Your task to perform on an android device: Search for apple airpods pro on walmart.com, select the first entry, add it to the cart, then select checkout. Image 0: 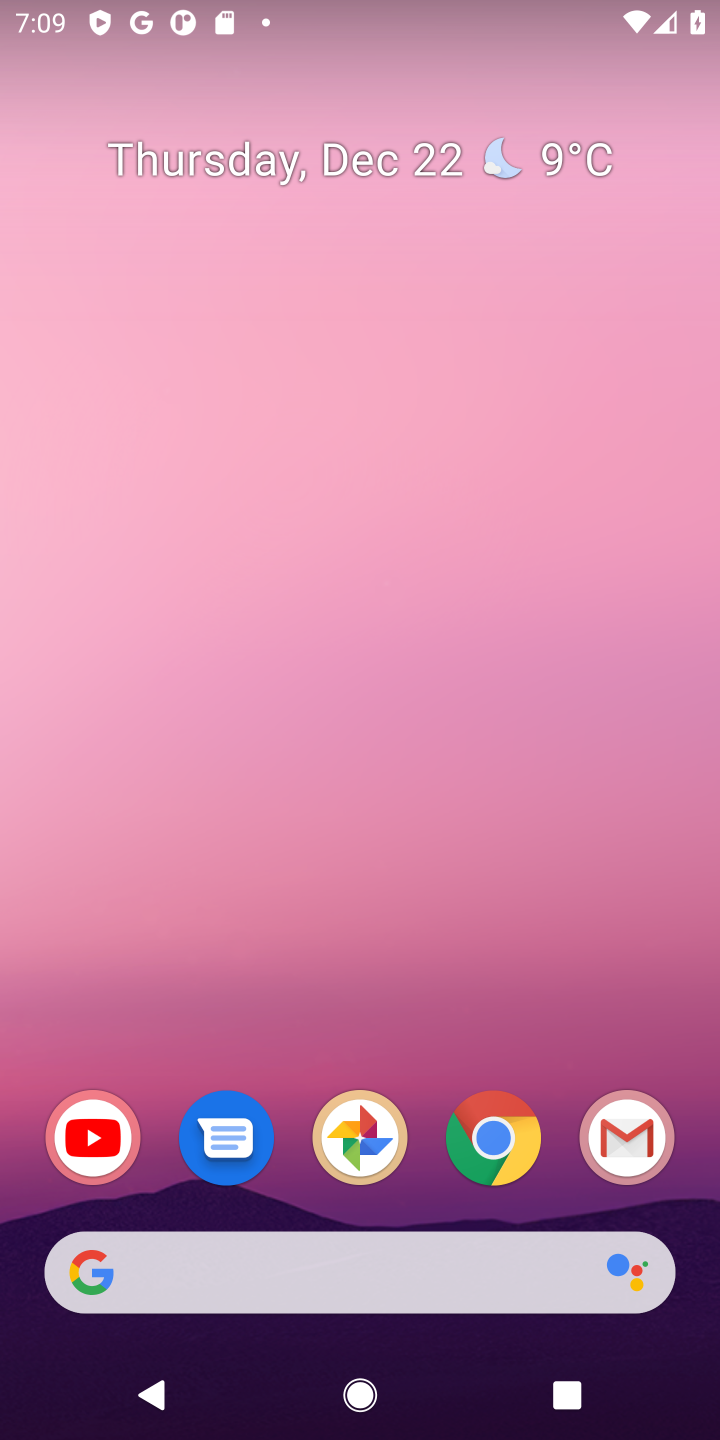
Step 0: click (486, 1139)
Your task to perform on an android device: Search for apple airpods pro on walmart.com, select the first entry, add it to the cart, then select checkout. Image 1: 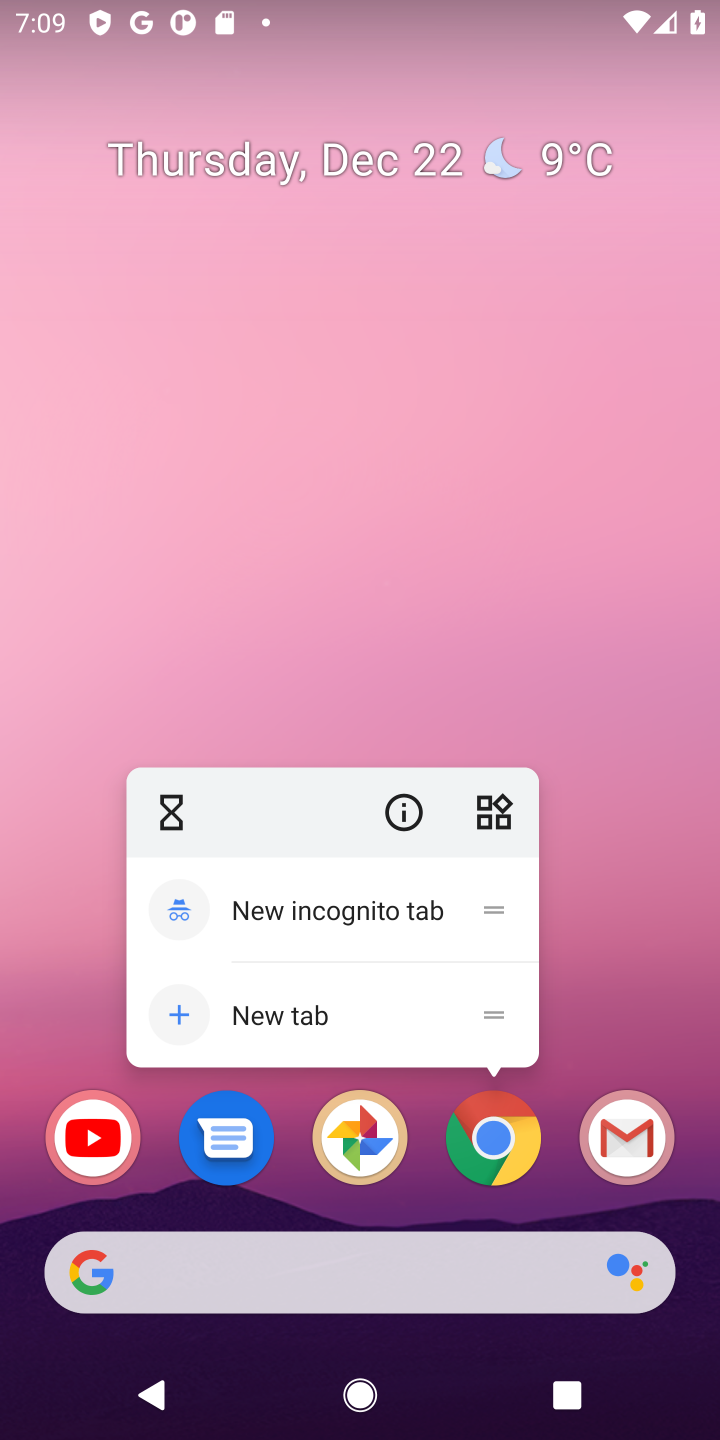
Step 1: click (486, 1139)
Your task to perform on an android device: Search for apple airpods pro on walmart.com, select the first entry, add it to the cart, then select checkout. Image 2: 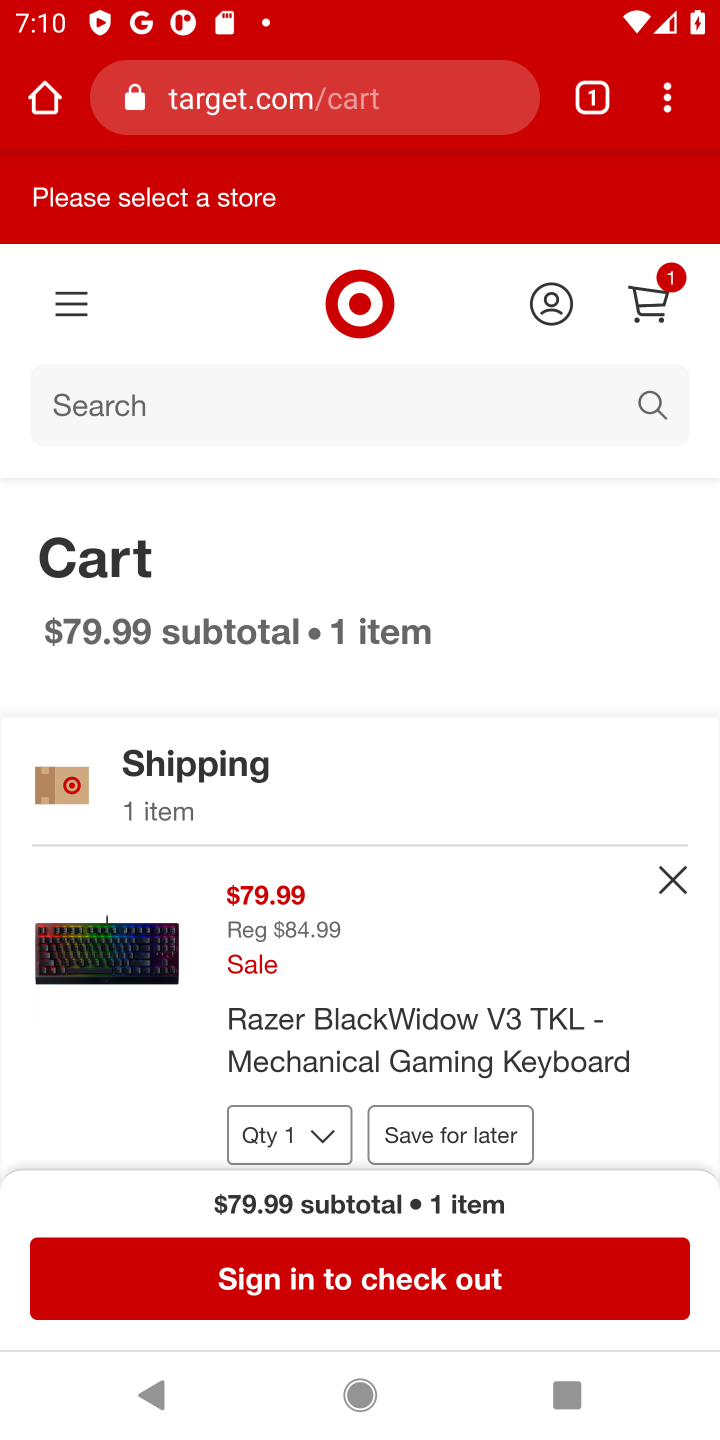
Step 2: click (434, 99)
Your task to perform on an android device: Search for apple airpods pro on walmart.com, select the first entry, add it to the cart, then select checkout. Image 3: 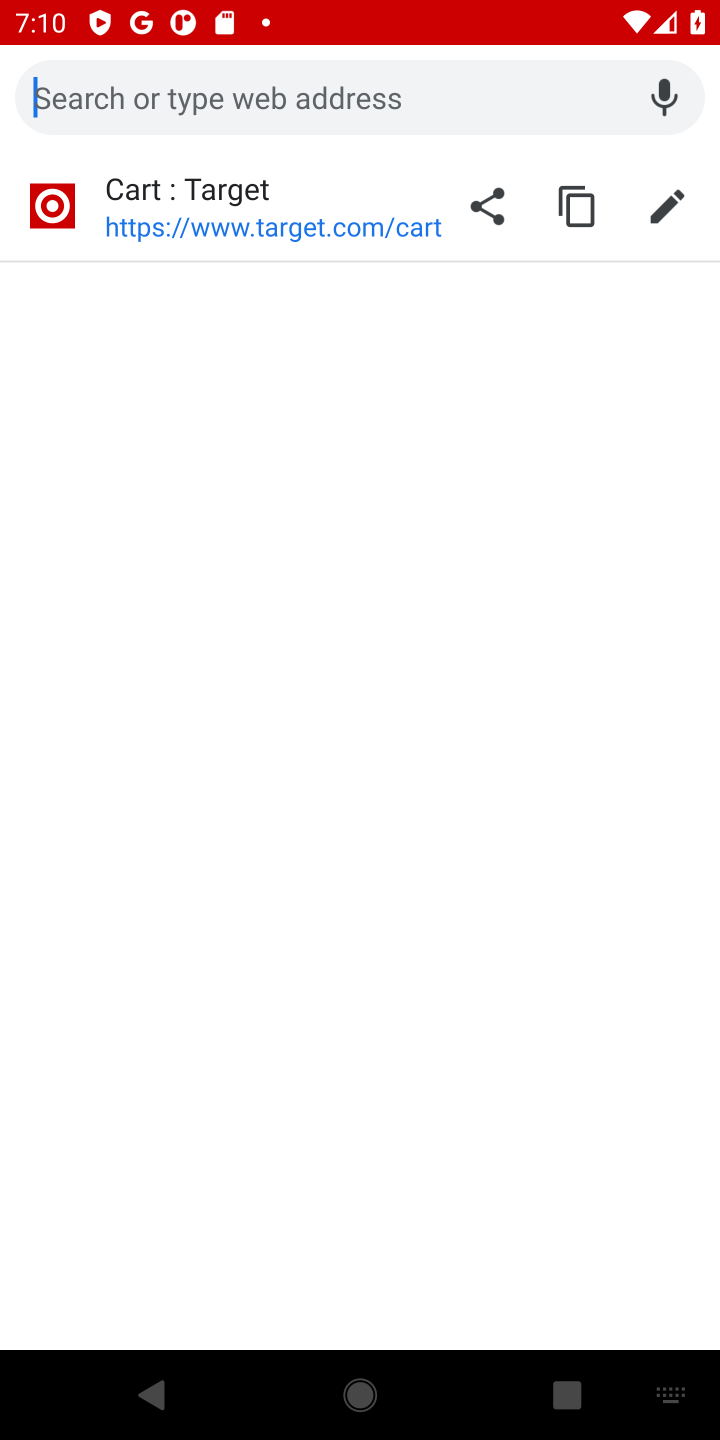
Step 3: press enter
Your task to perform on an android device: Search for apple airpods pro on walmart.com, select the first entry, add it to the cart, then select checkout. Image 4: 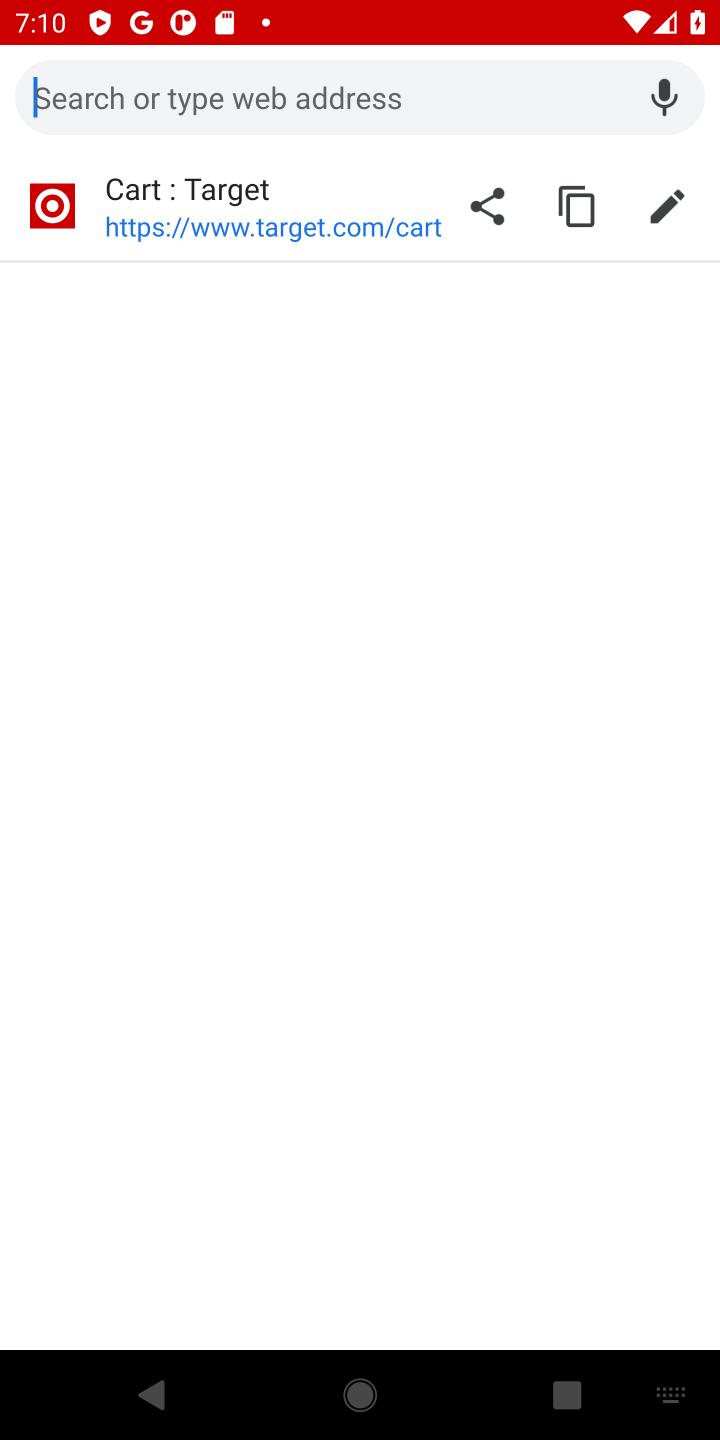
Step 4: type "walmart.com"
Your task to perform on an android device: Search for apple airpods pro on walmart.com, select the first entry, add it to the cart, then select checkout. Image 5: 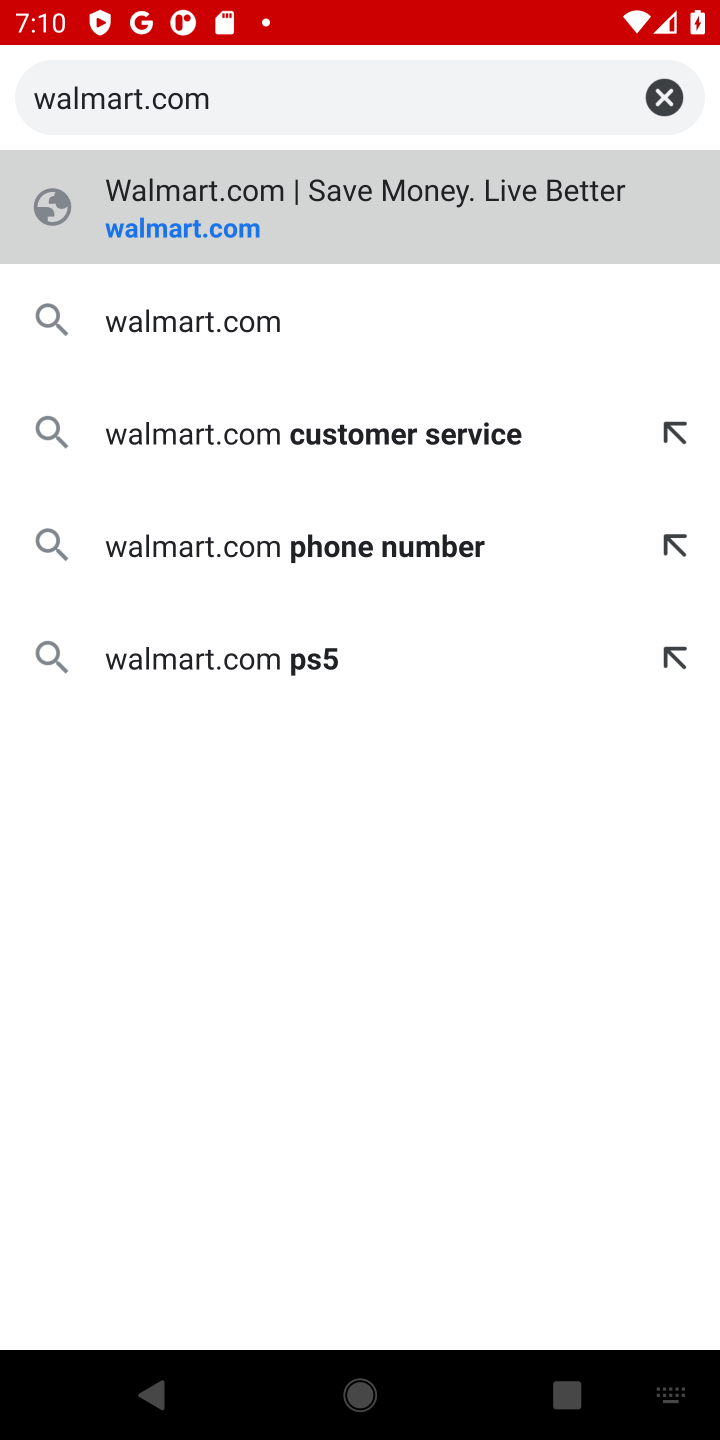
Step 5: click (174, 328)
Your task to perform on an android device: Search for apple airpods pro on walmart.com, select the first entry, add it to the cart, then select checkout. Image 6: 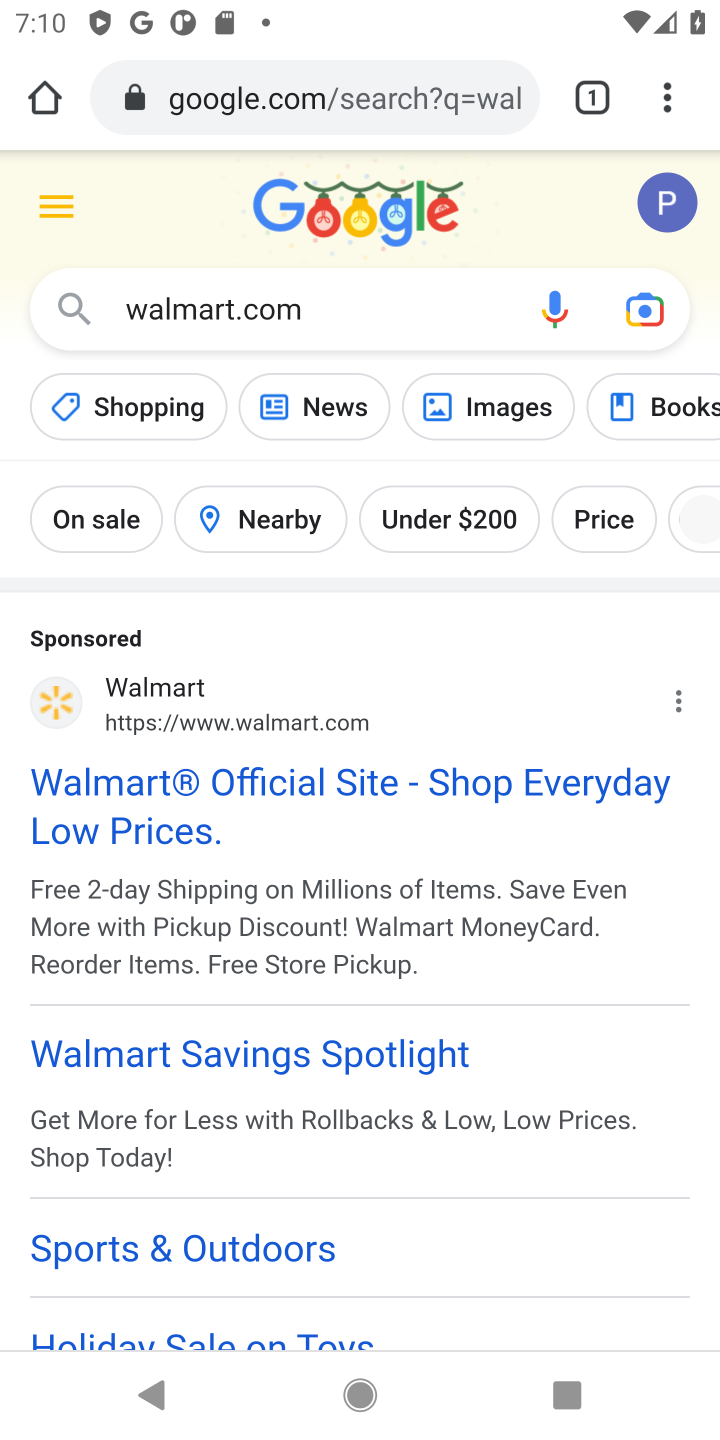
Step 6: click (240, 712)
Your task to perform on an android device: Search for apple airpods pro on walmart.com, select the first entry, add it to the cart, then select checkout. Image 7: 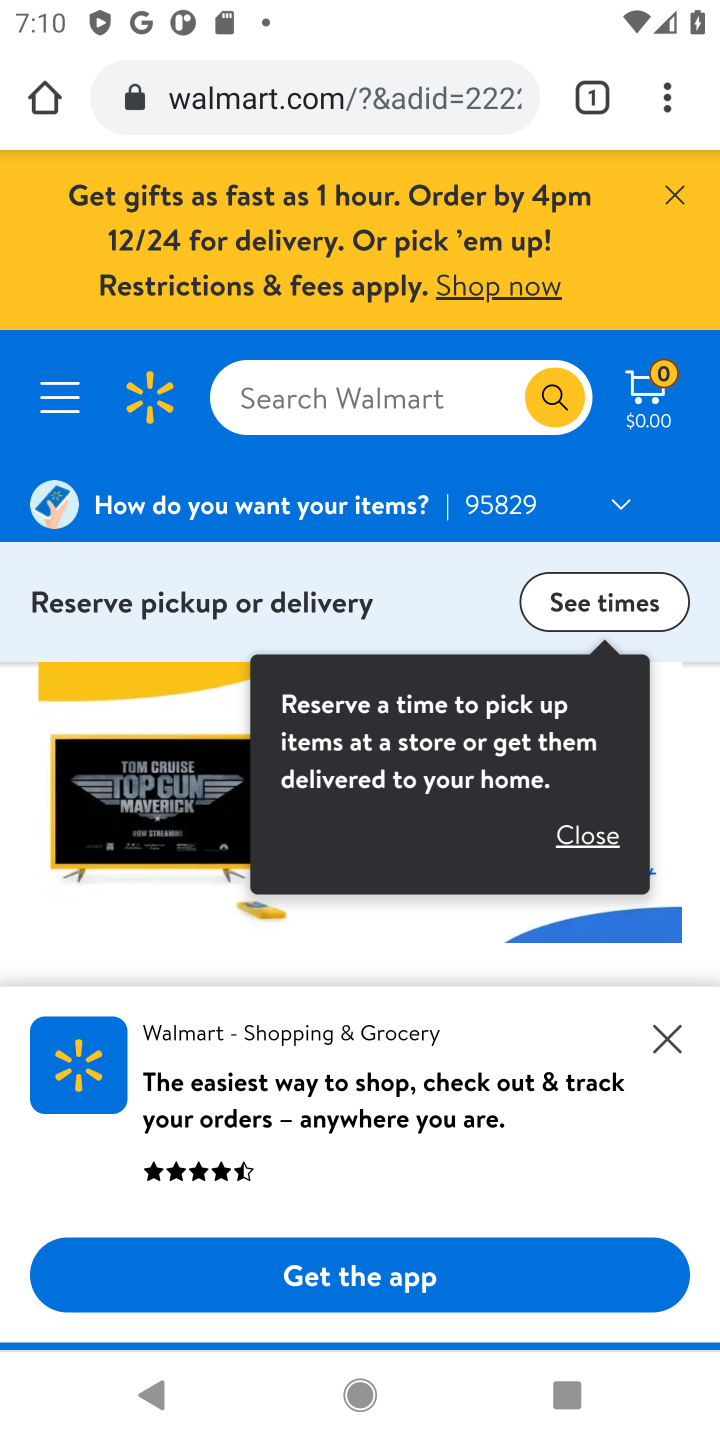
Step 7: click (670, 190)
Your task to perform on an android device: Search for apple airpods pro on walmart.com, select the first entry, add it to the cart, then select checkout. Image 8: 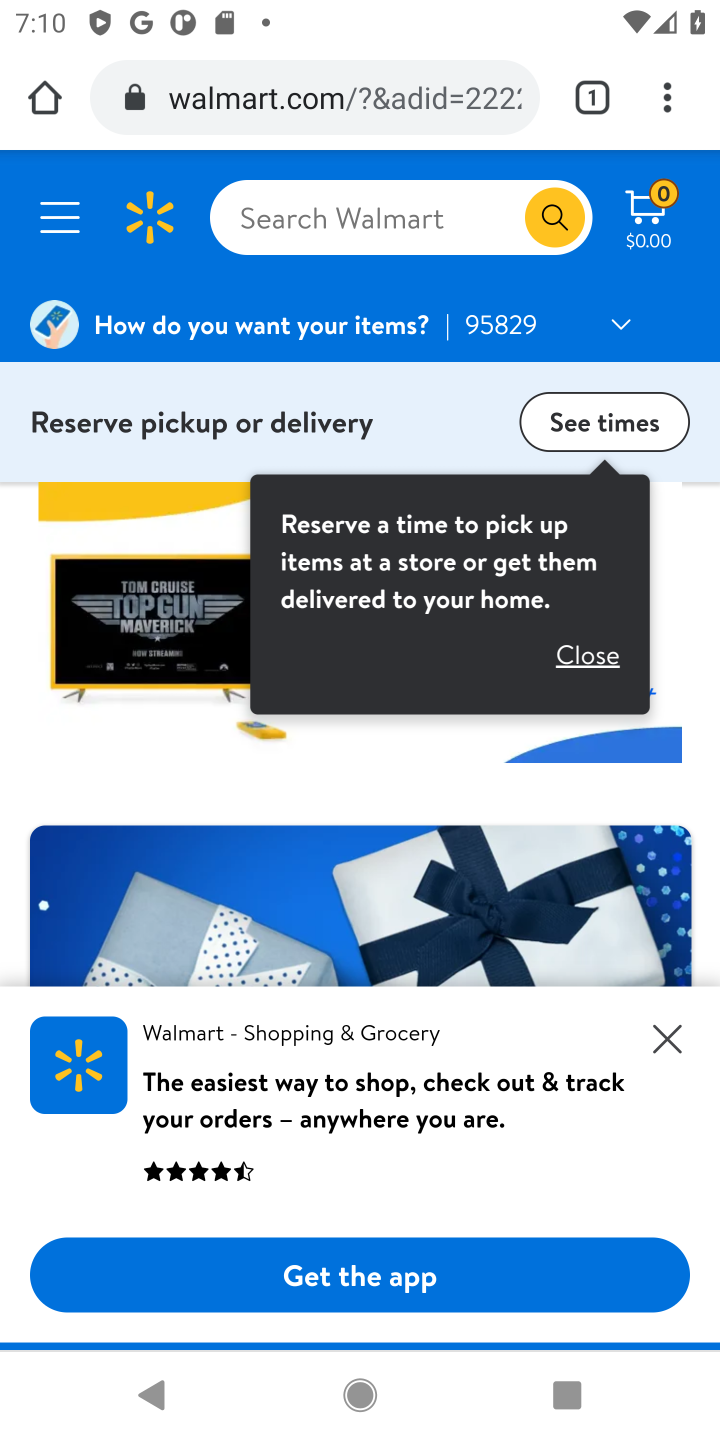
Step 8: click (450, 215)
Your task to perform on an android device: Search for apple airpods pro on walmart.com, select the first entry, add it to the cart, then select checkout. Image 9: 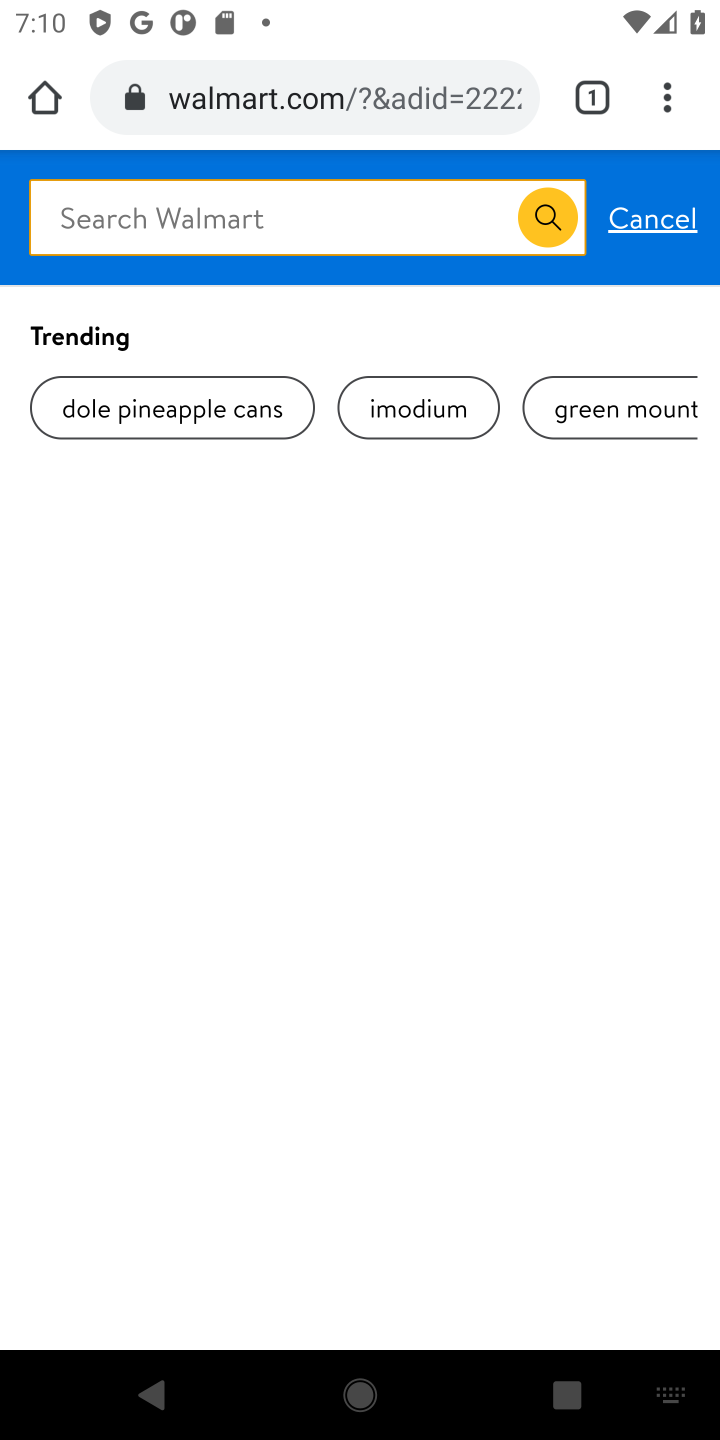
Step 9: type "apple airpods pro"
Your task to perform on an android device: Search for apple airpods pro on walmart.com, select the first entry, add it to the cart, then select checkout. Image 10: 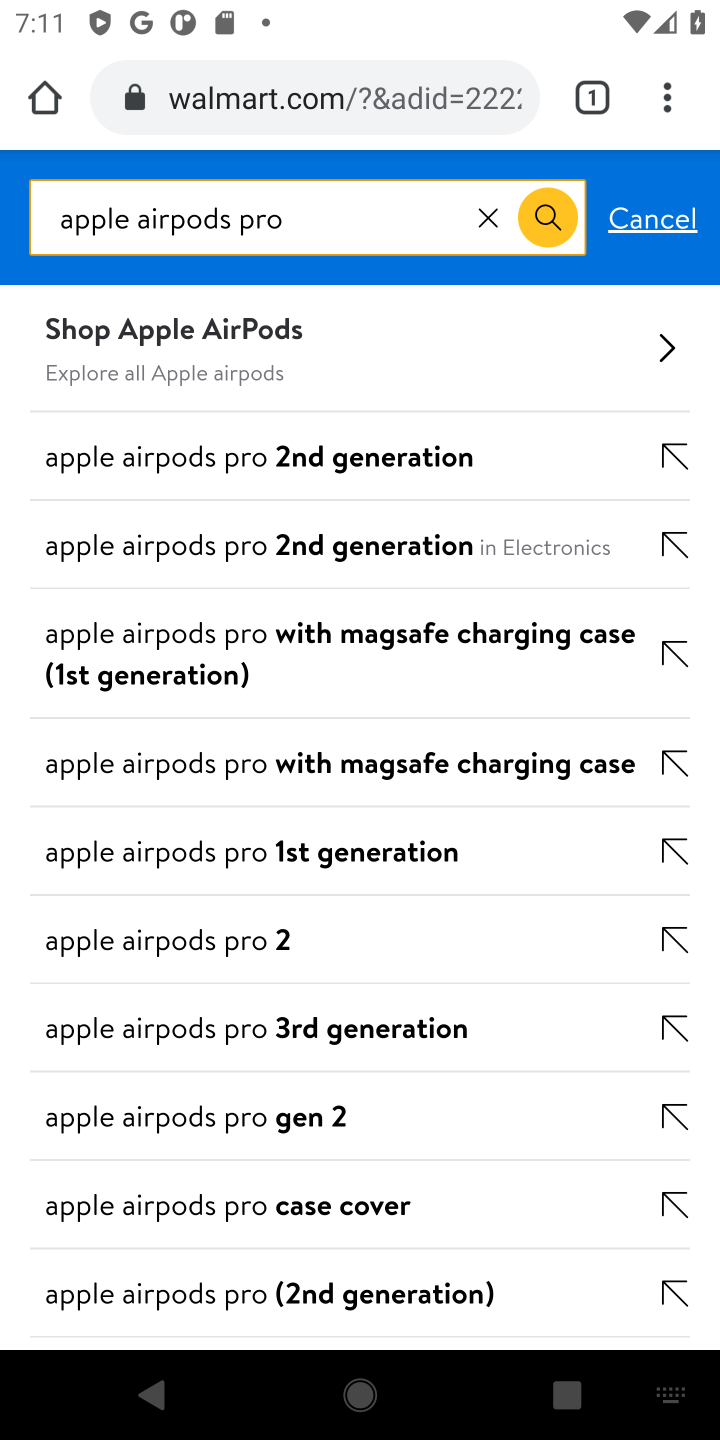
Step 10: click (187, 938)
Your task to perform on an android device: Search for apple airpods pro on walmart.com, select the first entry, add it to the cart, then select checkout. Image 11: 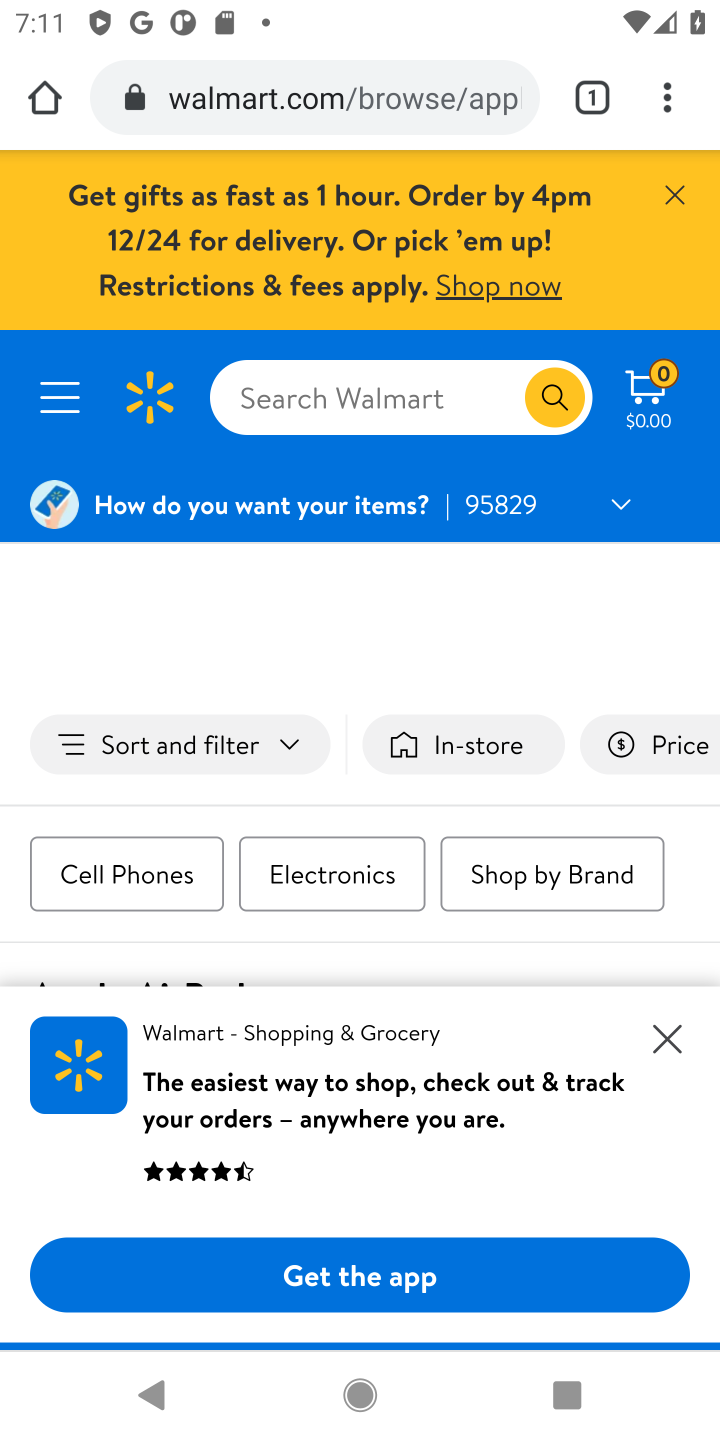
Step 11: click (666, 1018)
Your task to perform on an android device: Search for apple airpods pro on walmart.com, select the first entry, add it to the cart, then select checkout. Image 12: 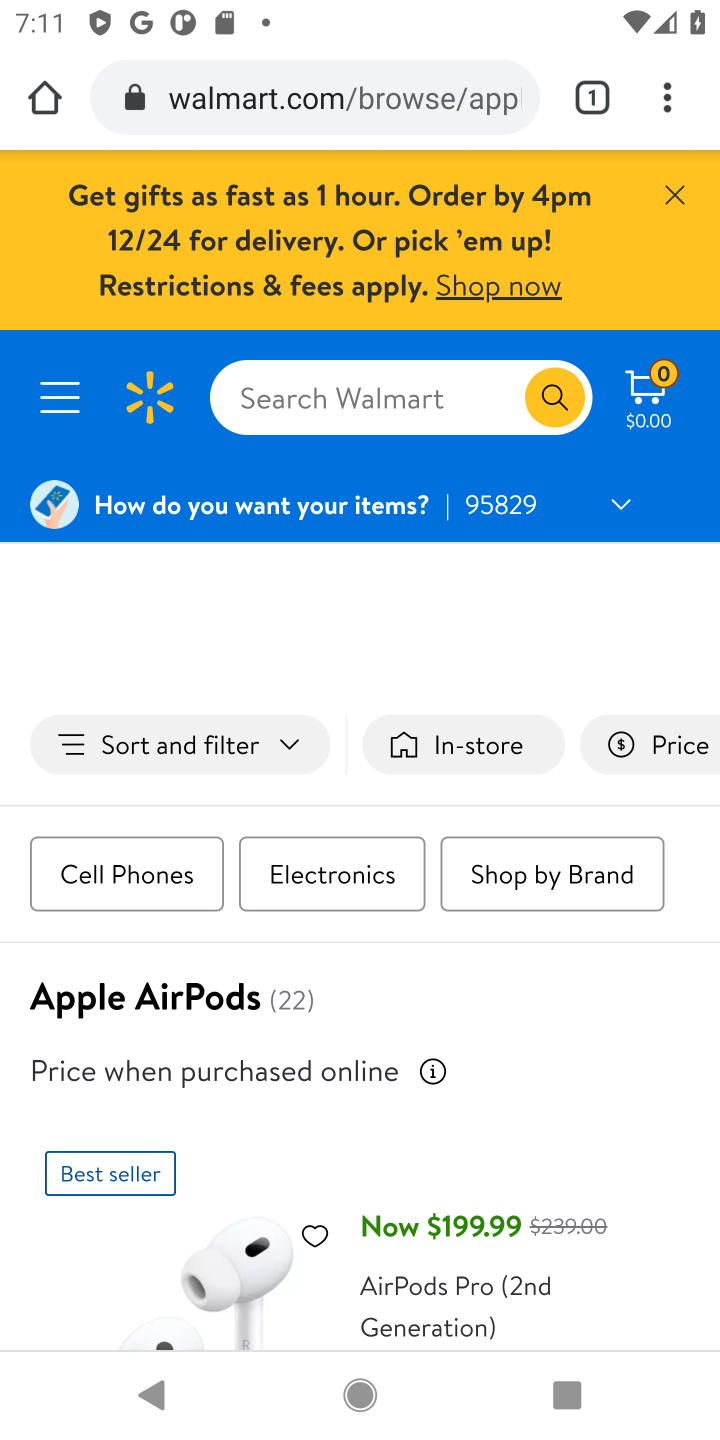
Step 12: drag from (621, 1094) to (598, 518)
Your task to perform on an android device: Search for apple airpods pro on walmart.com, select the first entry, add it to the cart, then select checkout. Image 13: 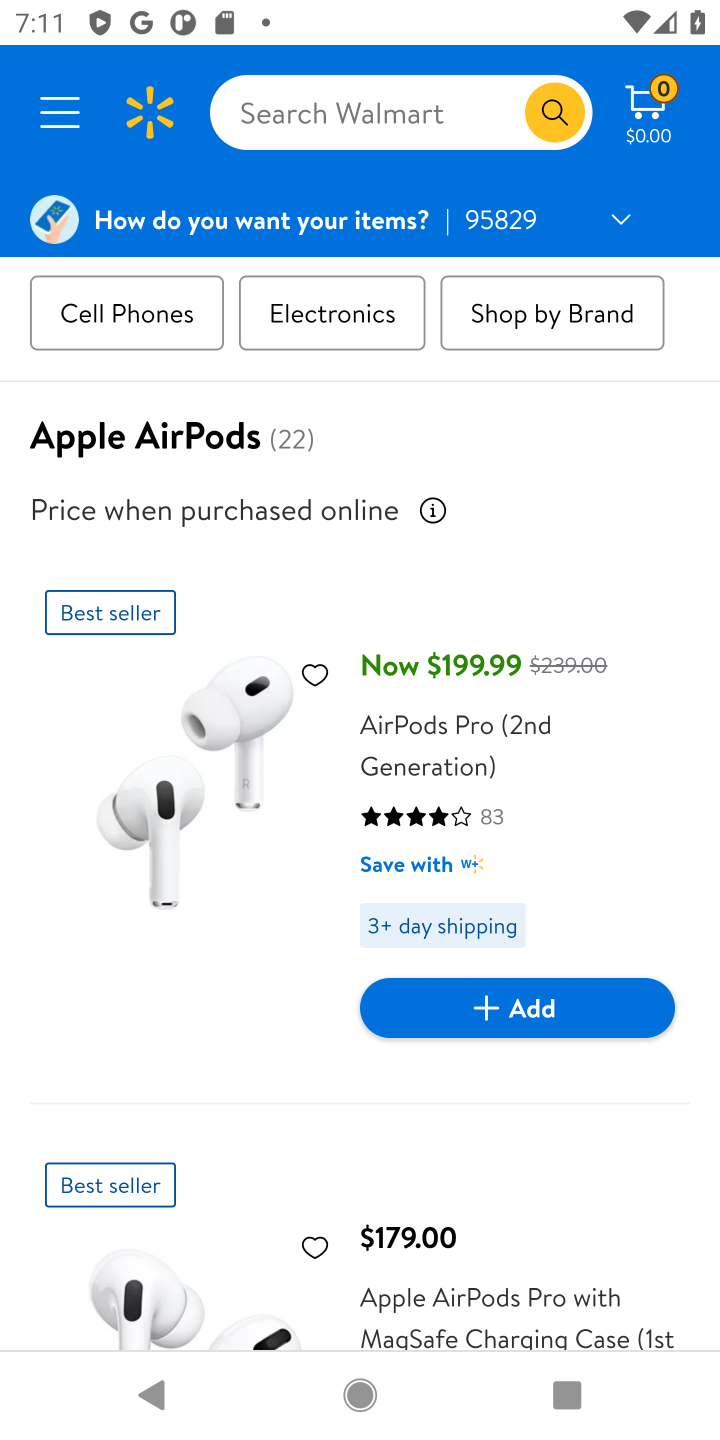
Step 13: click (177, 741)
Your task to perform on an android device: Search for apple airpods pro on walmart.com, select the first entry, add it to the cart, then select checkout. Image 14: 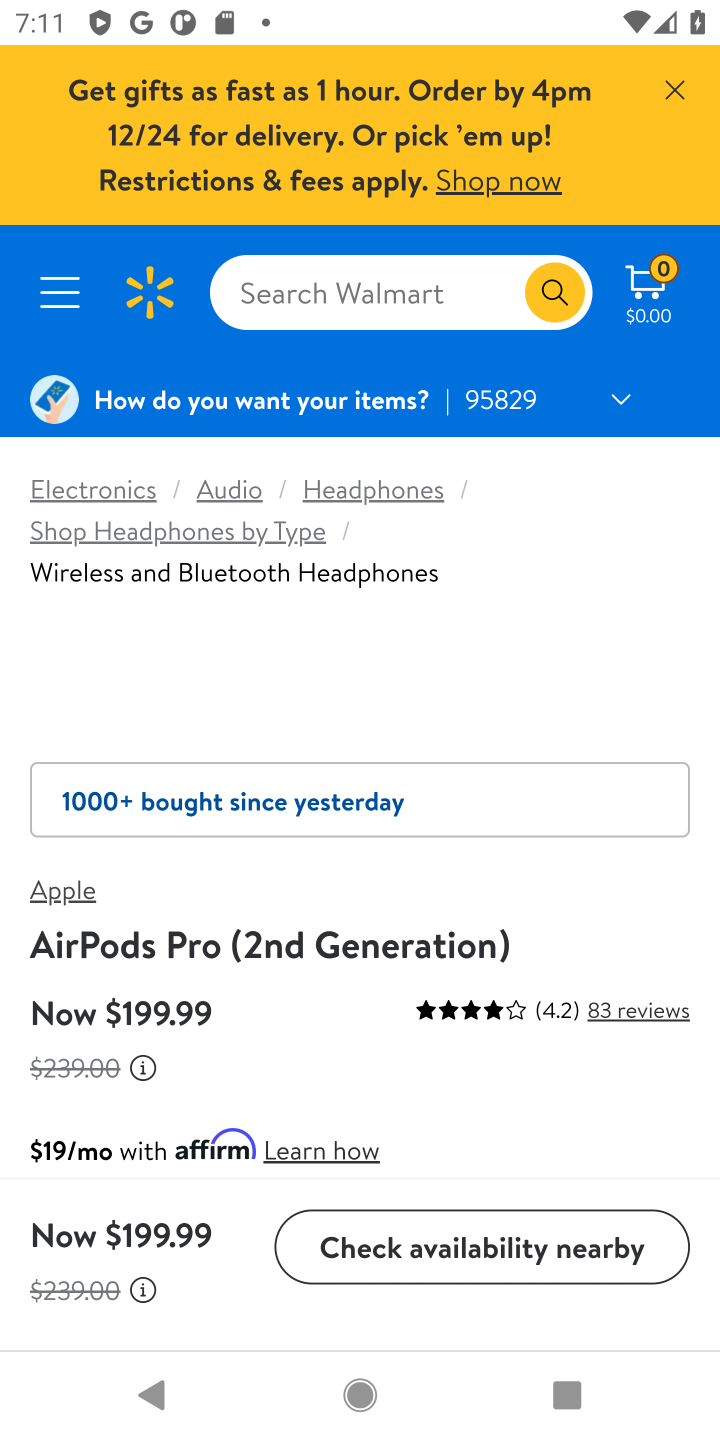
Step 14: drag from (551, 1104) to (688, 618)
Your task to perform on an android device: Search for apple airpods pro on walmart.com, select the first entry, add it to the cart, then select checkout. Image 15: 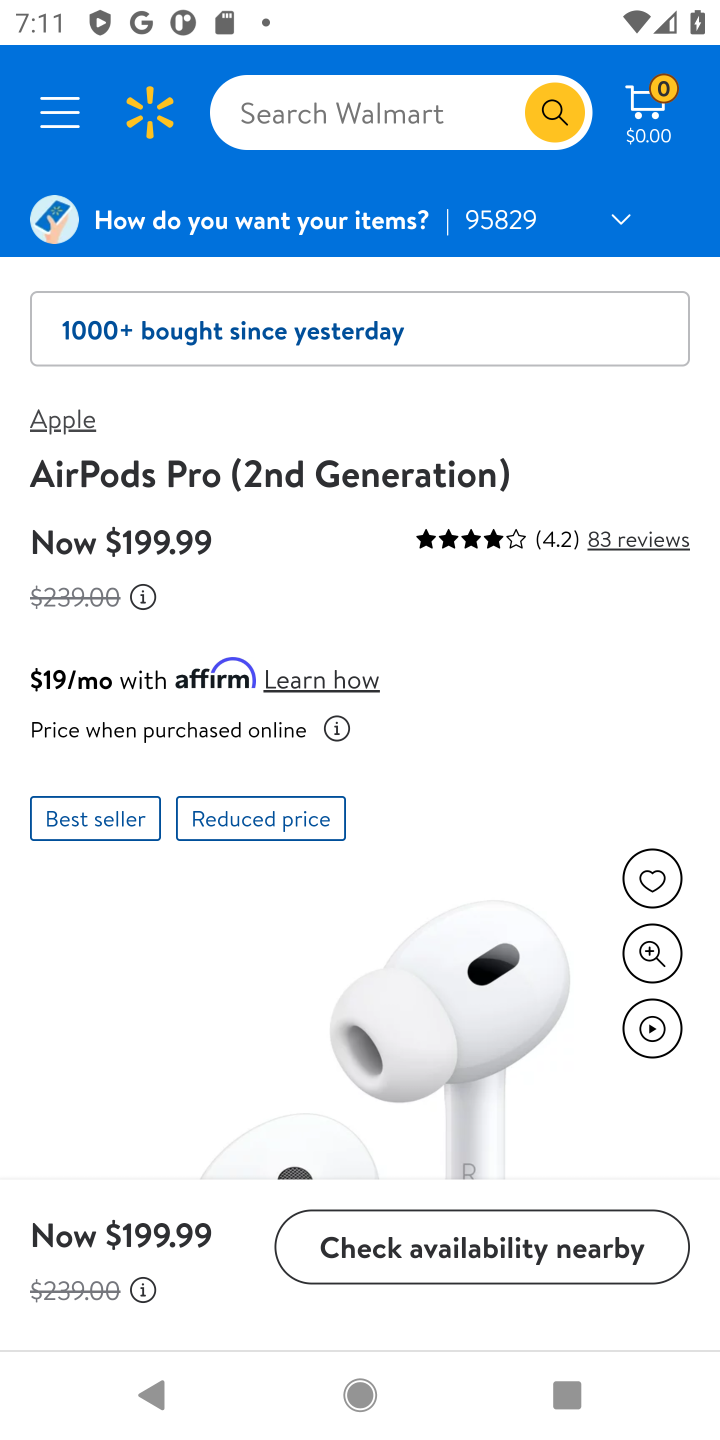
Step 15: drag from (485, 855) to (604, 295)
Your task to perform on an android device: Search for apple airpods pro on walmart.com, select the first entry, add it to the cart, then select checkout. Image 16: 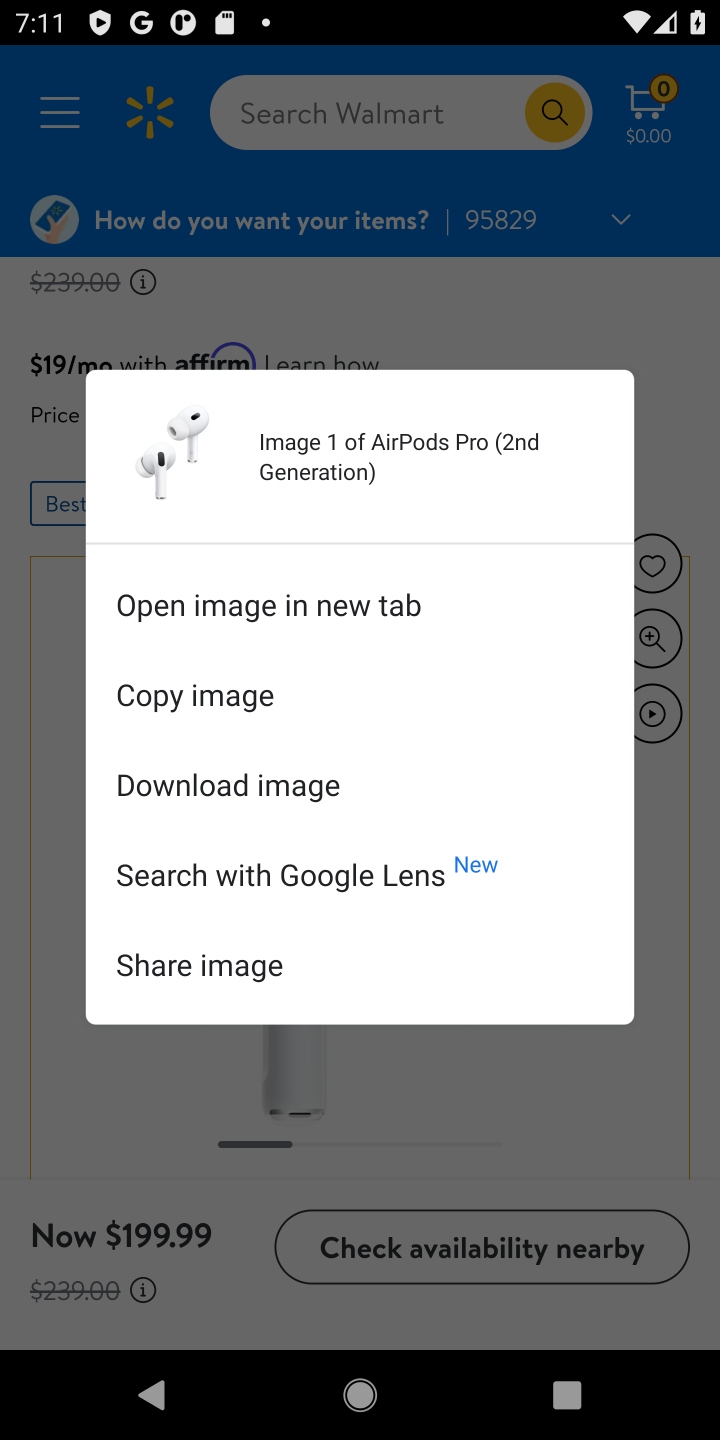
Step 16: click (605, 294)
Your task to perform on an android device: Search for apple airpods pro on walmart.com, select the first entry, add it to the cart, then select checkout. Image 17: 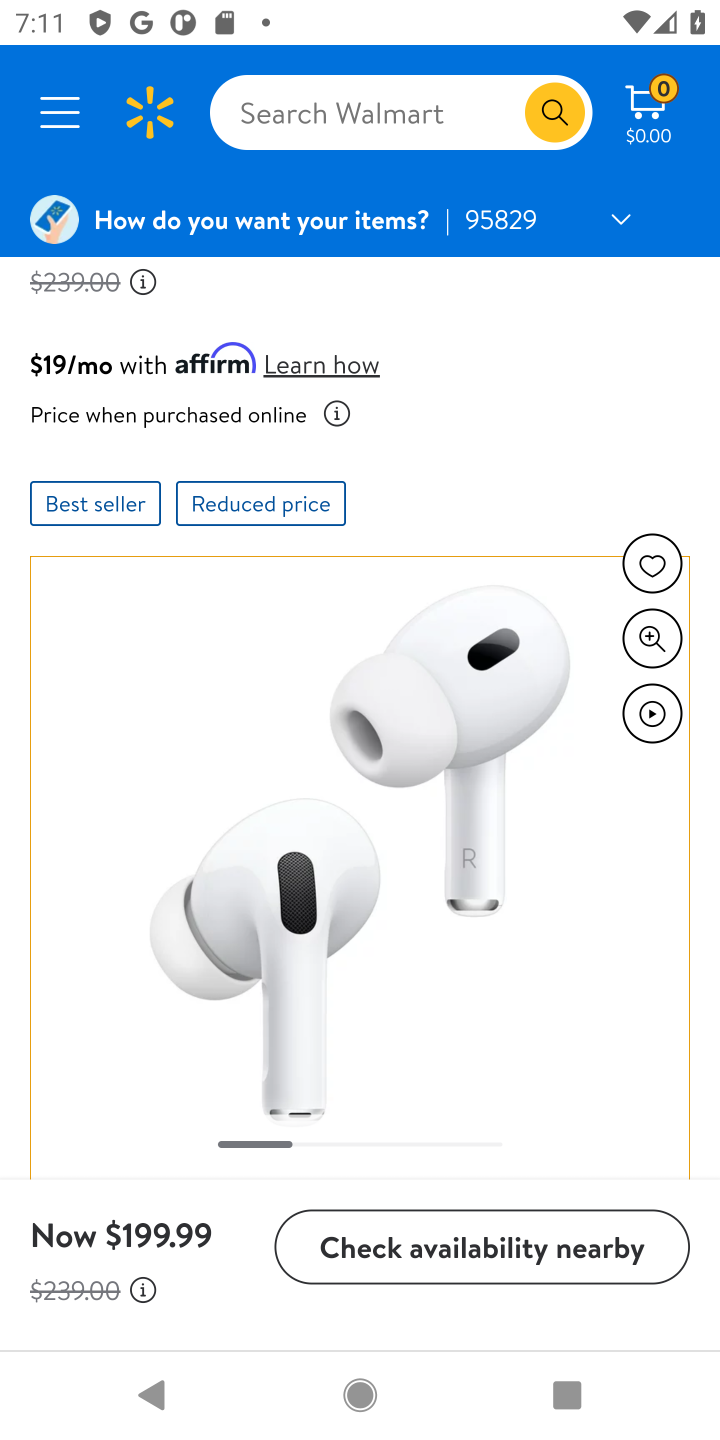
Step 17: drag from (543, 1024) to (623, 242)
Your task to perform on an android device: Search for apple airpods pro on walmart.com, select the first entry, add it to the cart, then select checkout. Image 18: 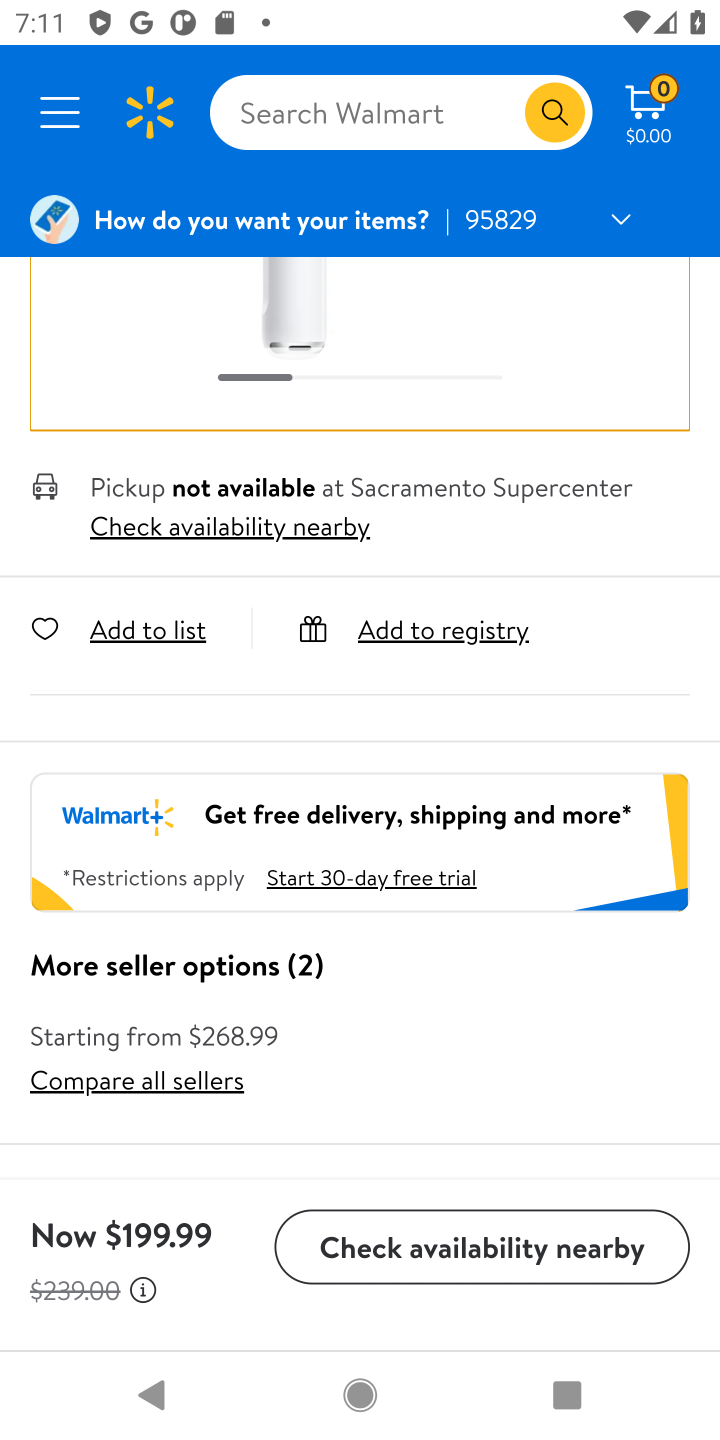
Step 18: drag from (465, 1011) to (544, 617)
Your task to perform on an android device: Search for apple airpods pro on walmart.com, select the first entry, add it to the cart, then select checkout. Image 19: 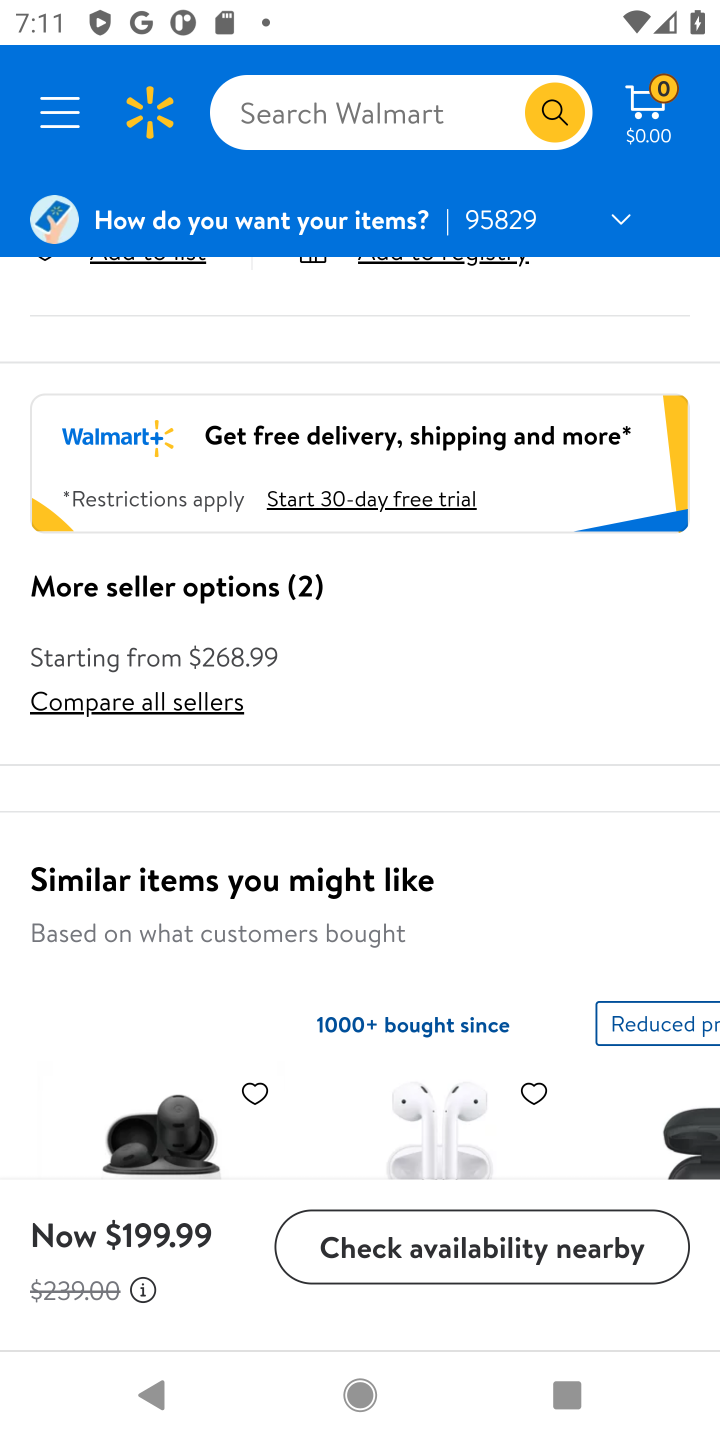
Step 19: press back button
Your task to perform on an android device: Search for apple airpods pro on walmart.com, select the first entry, add it to the cart, then select checkout. Image 20: 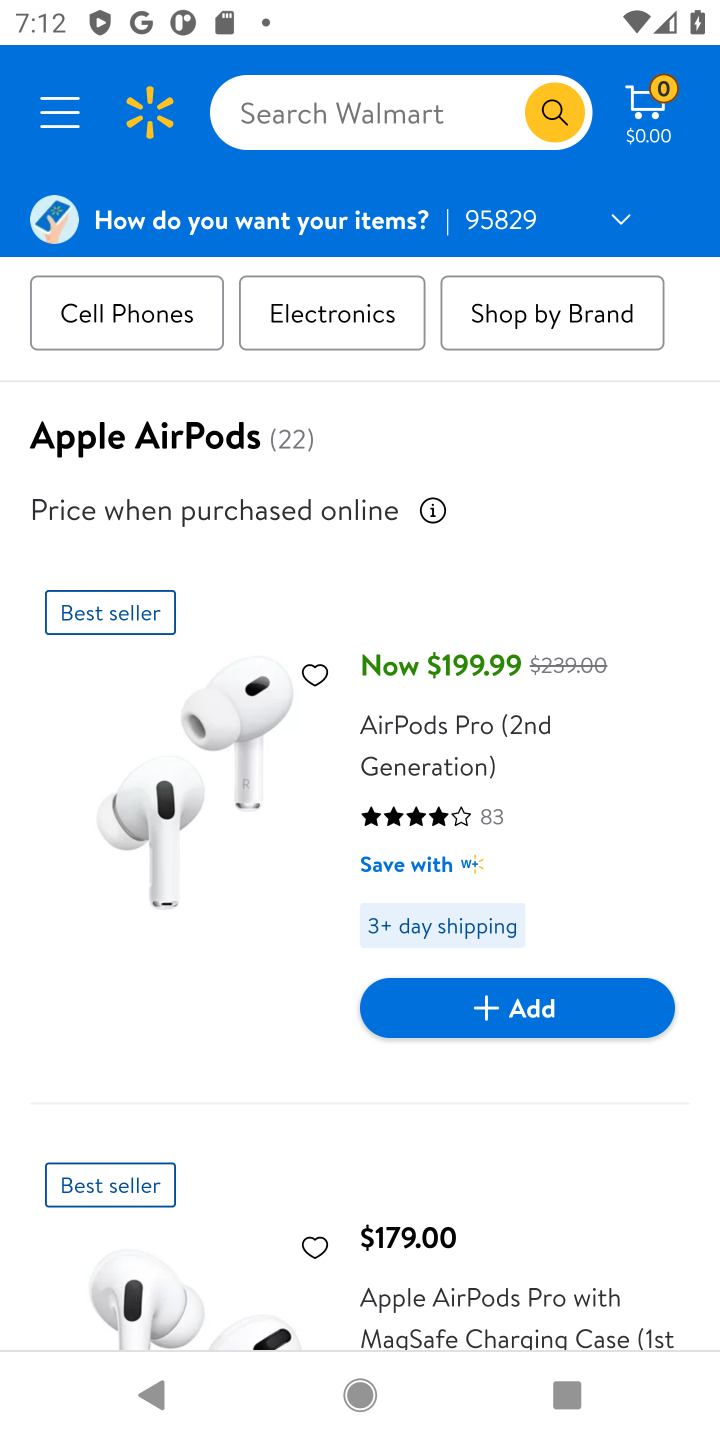
Step 20: click (156, 1304)
Your task to perform on an android device: Search for apple airpods pro on walmart.com, select the first entry, add it to the cart, then select checkout. Image 21: 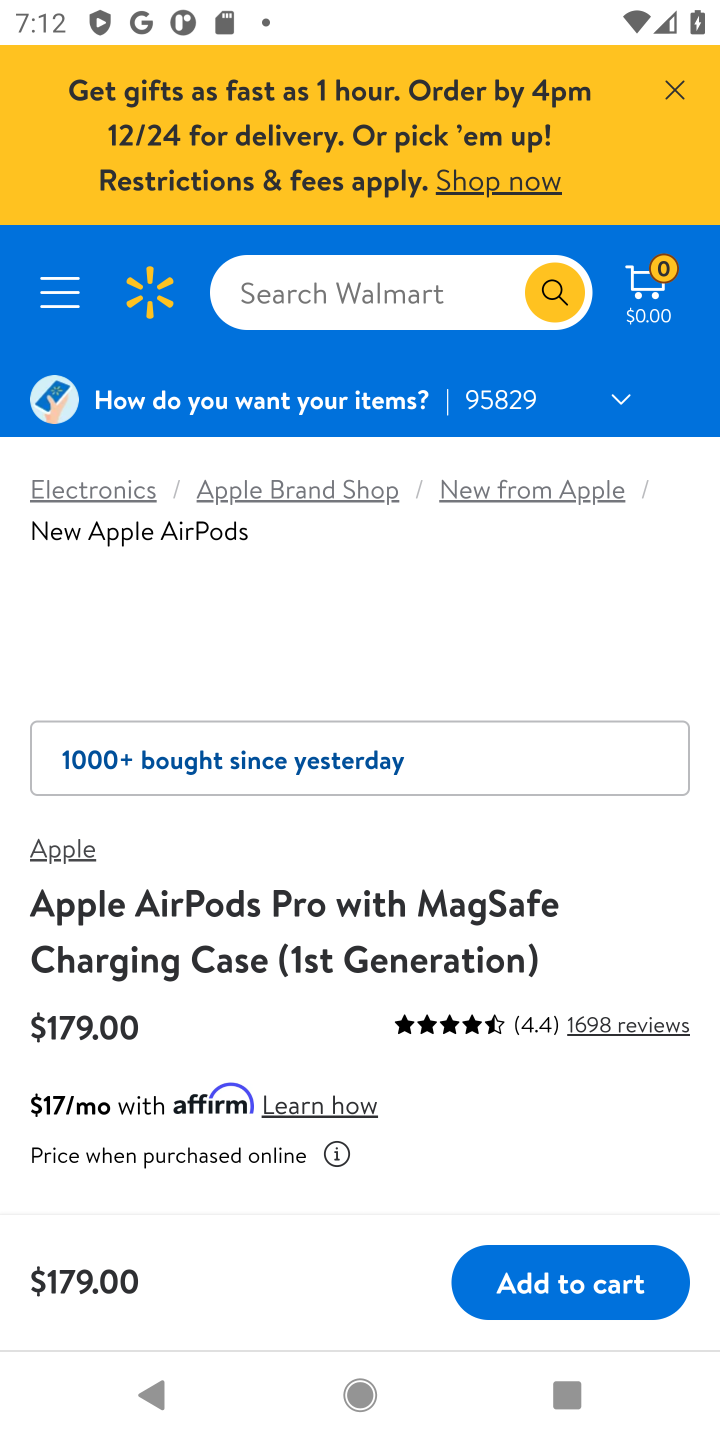
Step 21: click (596, 1277)
Your task to perform on an android device: Search for apple airpods pro on walmart.com, select the first entry, add it to the cart, then select checkout. Image 22: 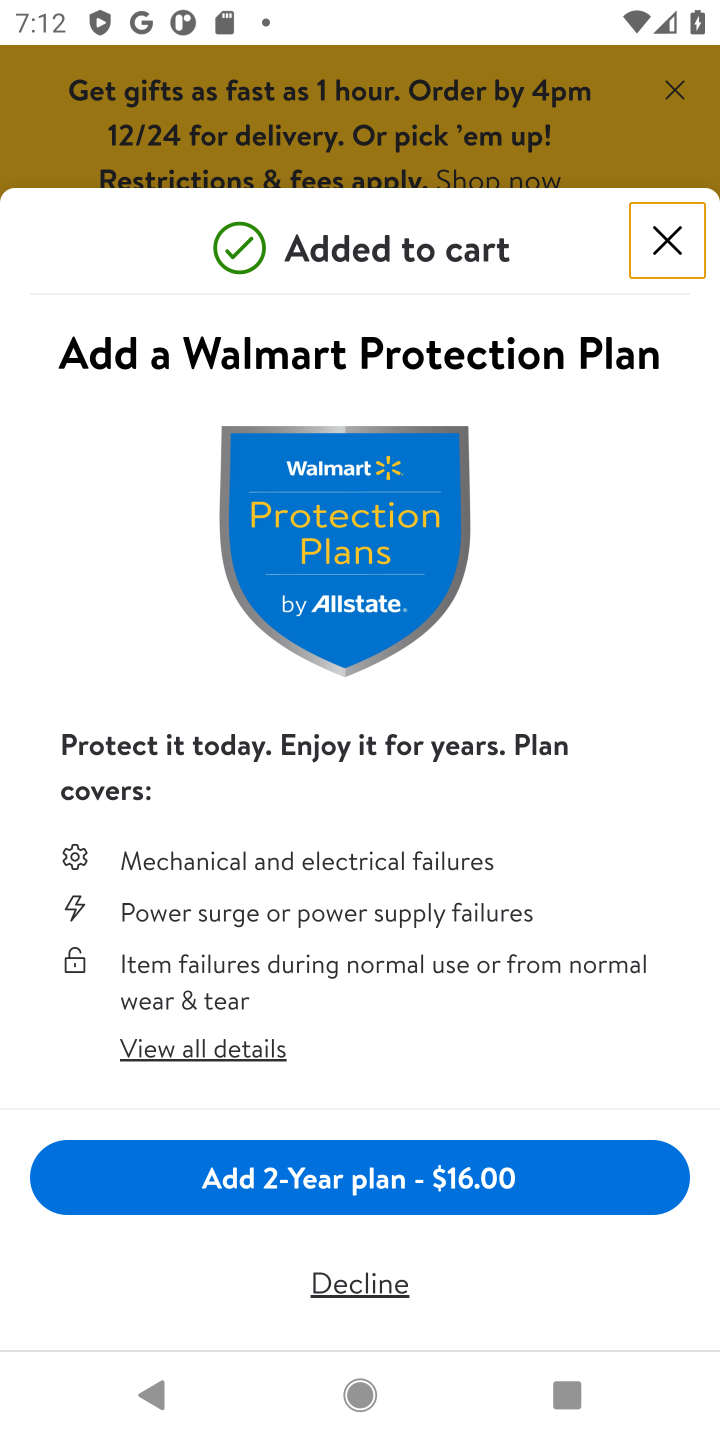
Step 22: click (657, 240)
Your task to perform on an android device: Search for apple airpods pro on walmart.com, select the first entry, add it to the cart, then select checkout. Image 23: 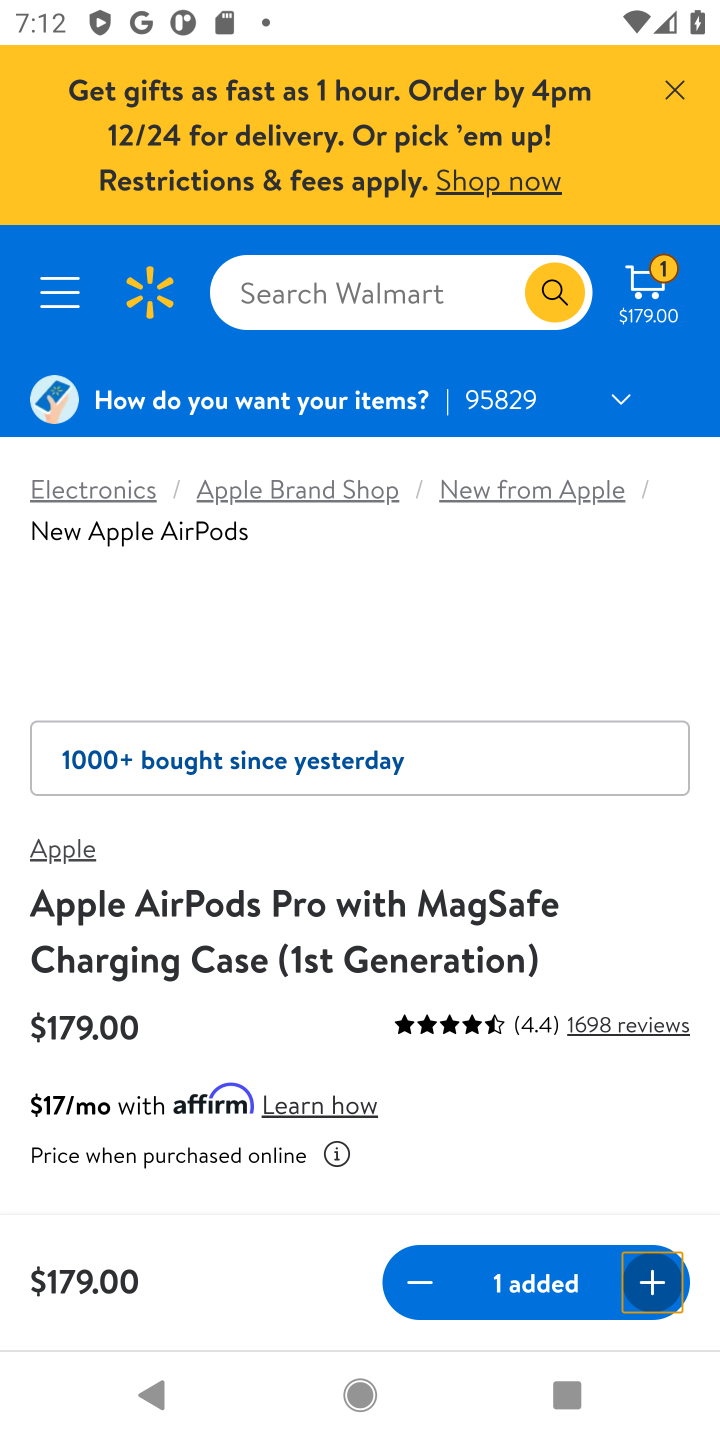
Step 23: click (682, 90)
Your task to perform on an android device: Search for apple airpods pro on walmart.com, select the first entry, add it to the cart, then select checkout. Image 24: 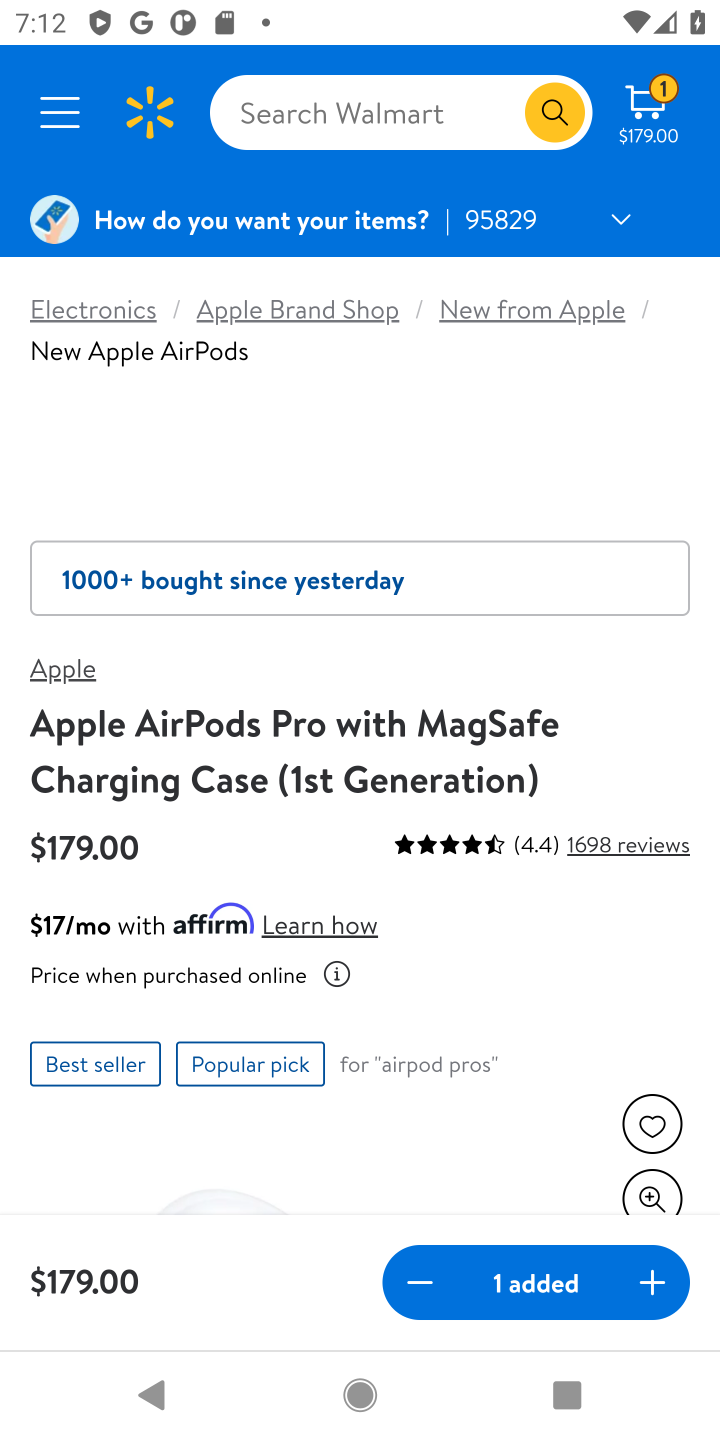
Step 24: click (645, 119)
Your task to perform on an android device: Search for apple airpods pro on walmart.com, select the first entry, add it to the cart, then select checkout. Image 25: 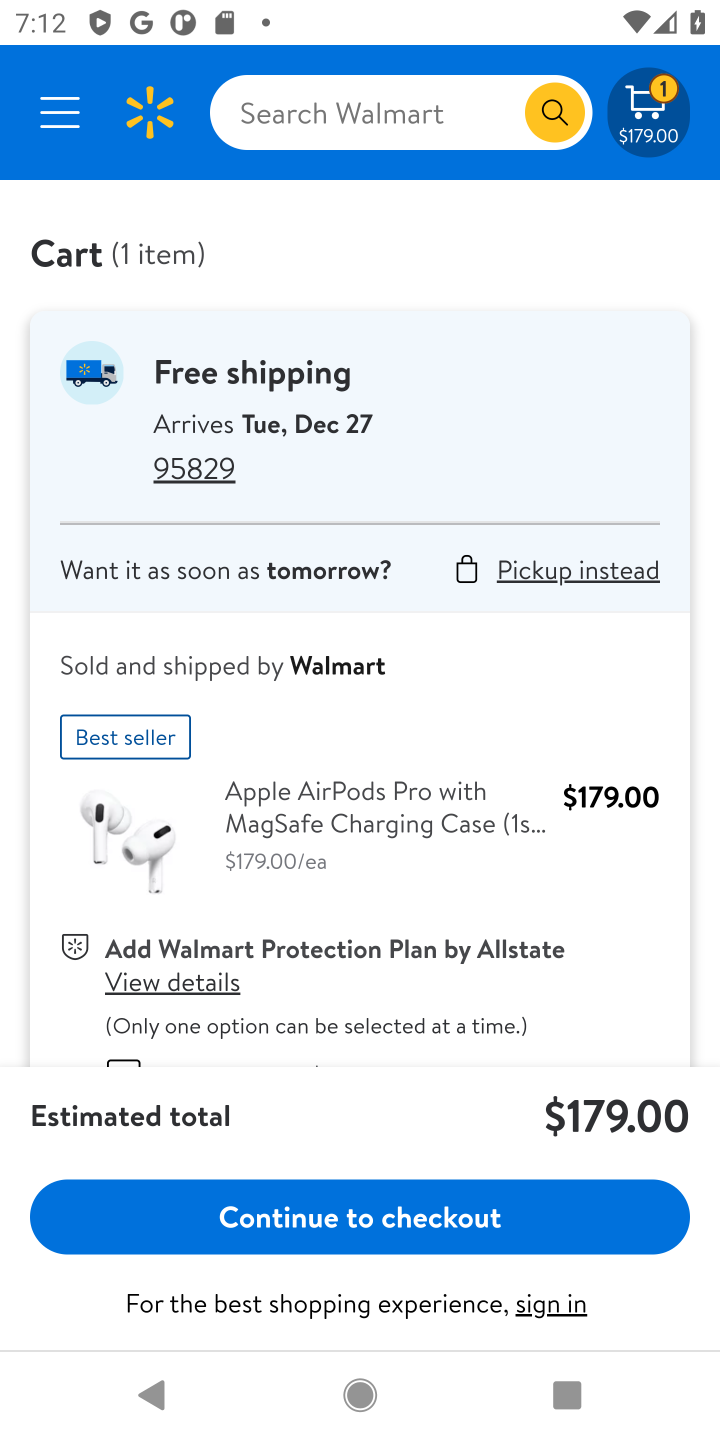
Step 25: click (257, 1205)
Your task to perform on an android device: Search for apple airpods pro on walmart.com, select the first entry, add it to the cart, then select checkout. Image 26: 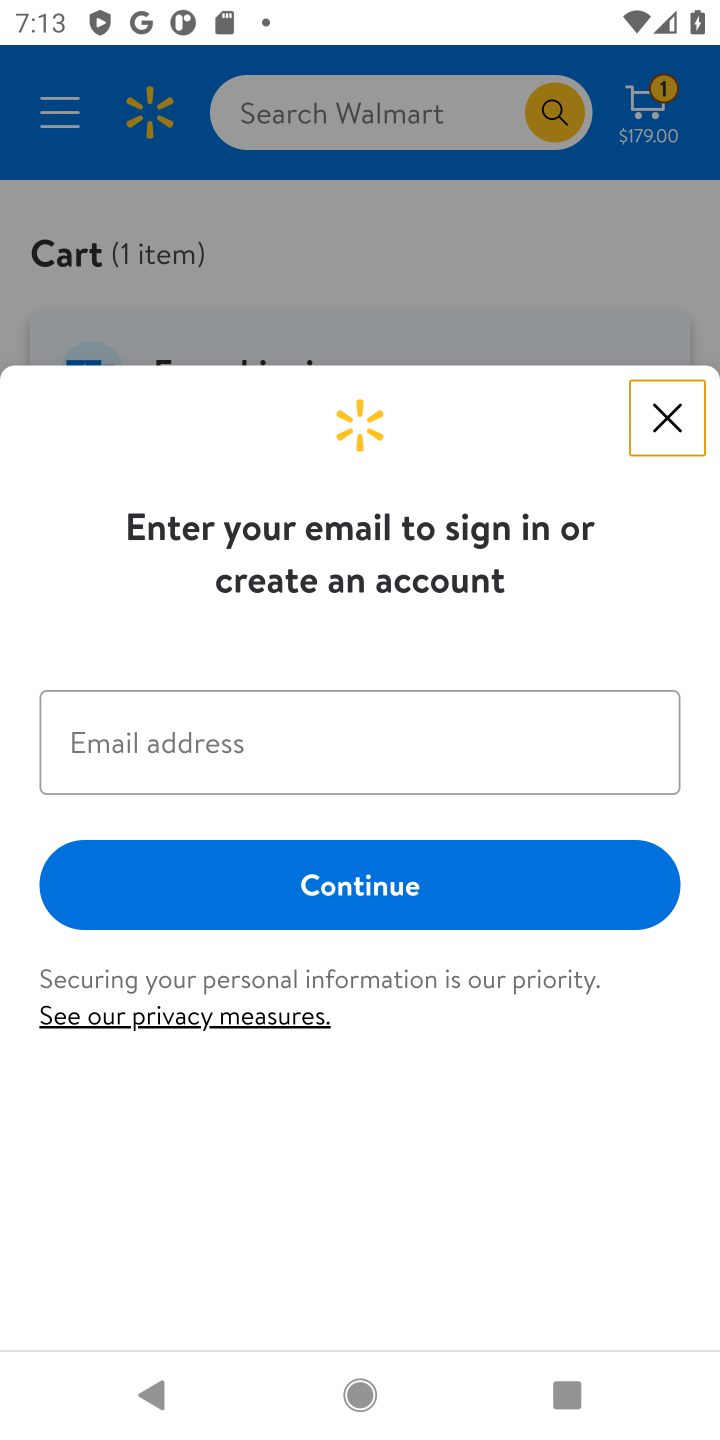
Step 26: click (687, 409)
Your task to perform on an android device: Search for apple airpods pro on walmart.com, select the first entry, add it to the cart, then select checkout. Image 27: 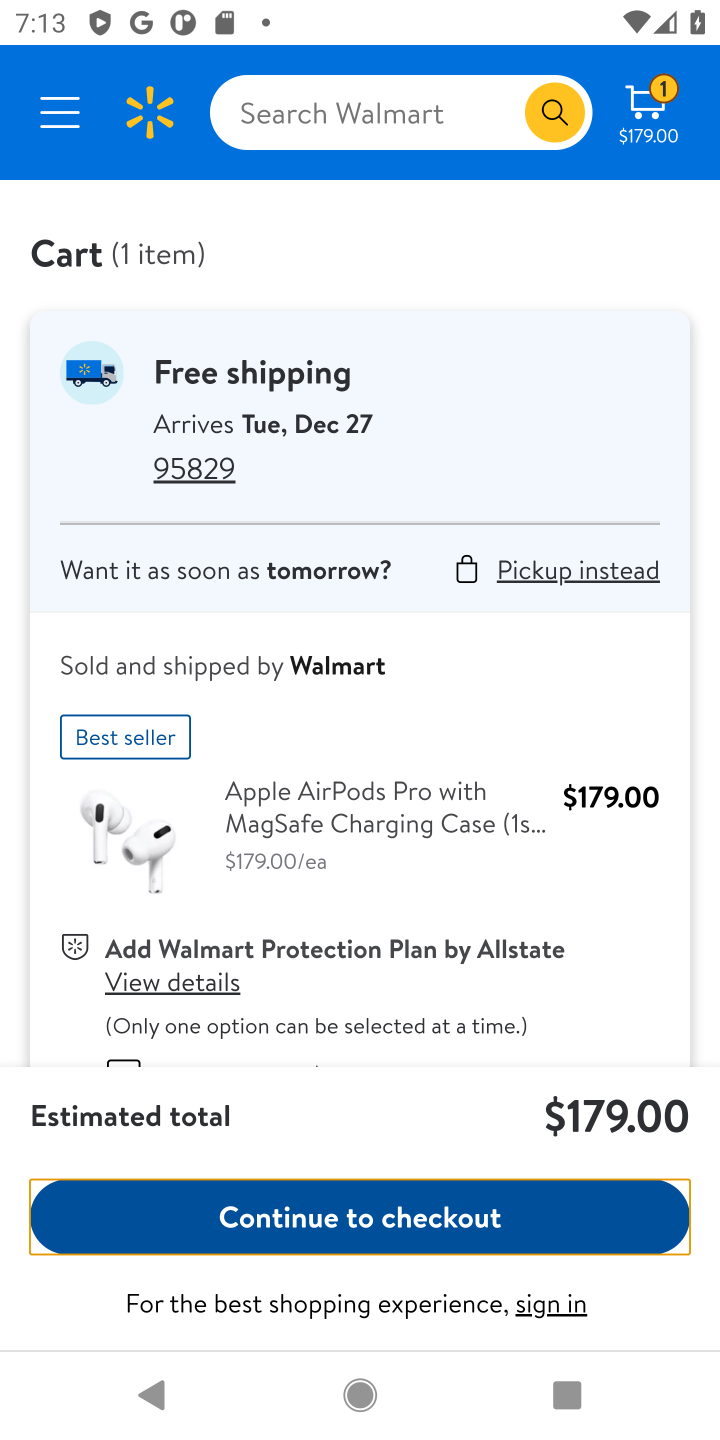
Step 27: task complete